Your task to perform on an android device: see tabs open on other devices in the chrome app Image 0: 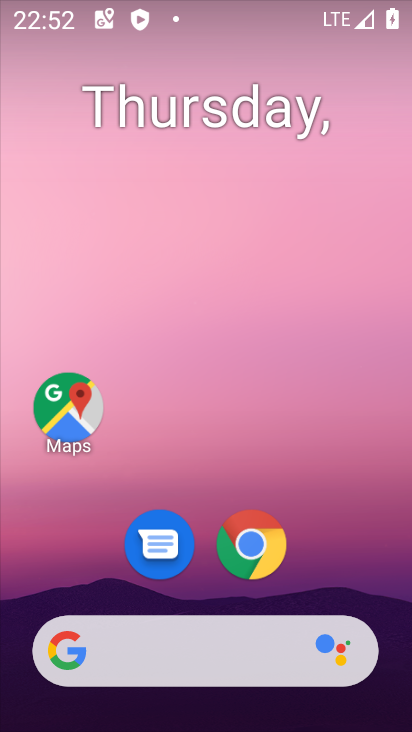
Step 0: click (258, 541)
Your task to perform on an android device: see tabs open on other devices in the chrome app Image 1: 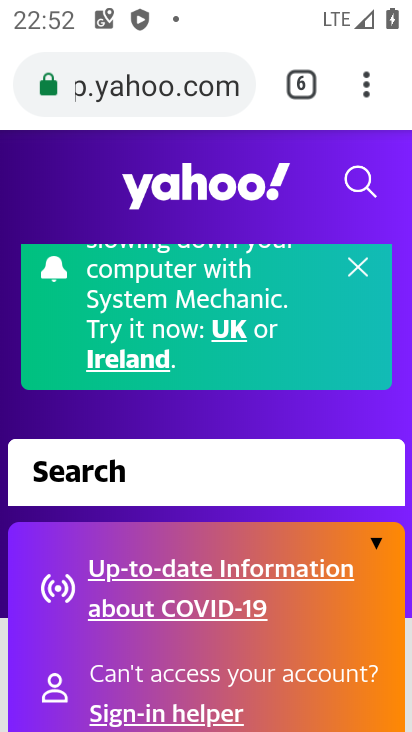
Step 1: click (362, 78)
Your task to perform on an android device: see tabs open on other devices in the chrome app Image 2: 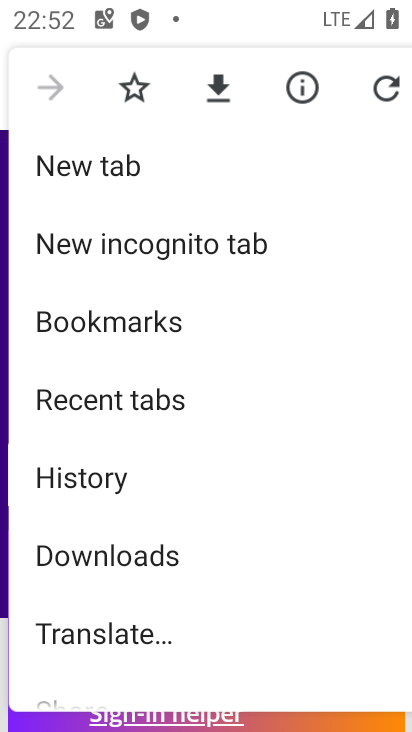
Step 2: click (89, 399)
Your task to perform on an android device: see tabs open on other devices in the chrome app Image 3: 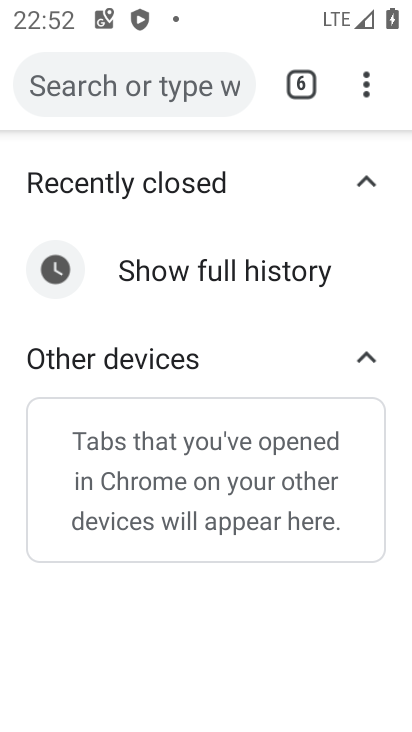
Step 3: task complete